Your task to perform on an android device: toggle airplane mode Image 0: 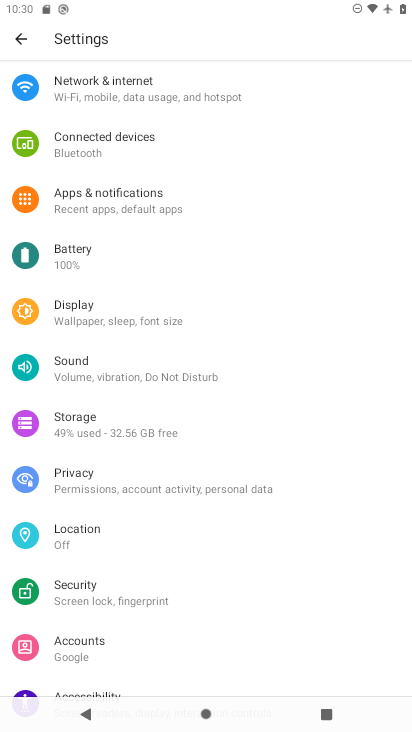
Step 0: click (130, 93)
Your task to perform on an android device: toggle airplane mode Image 1: 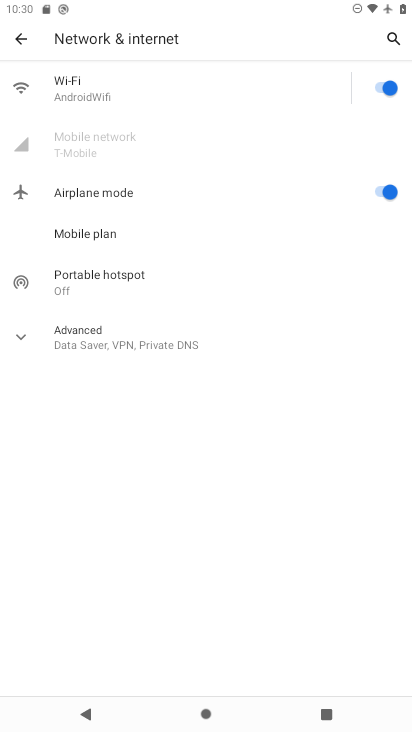
Step 1: click (381, 188)
Your task to perform on an android device: toggle airplane mode Image 2: 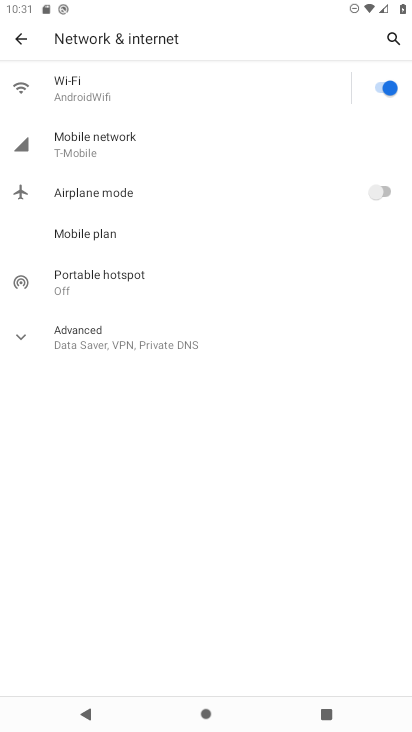
Step 2: task complete